Your task to perform on an android device: open a bookmark in the chrome app Image 0: 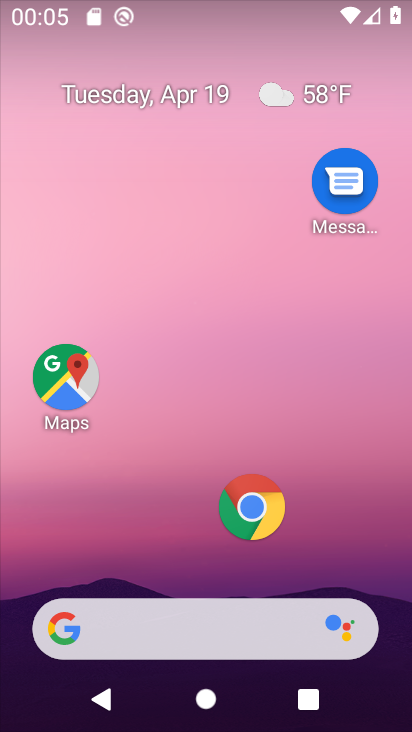
Step 0: click (249, 520)
Your task to perform on an android device: open a bookmark in the chrome app Image 1: 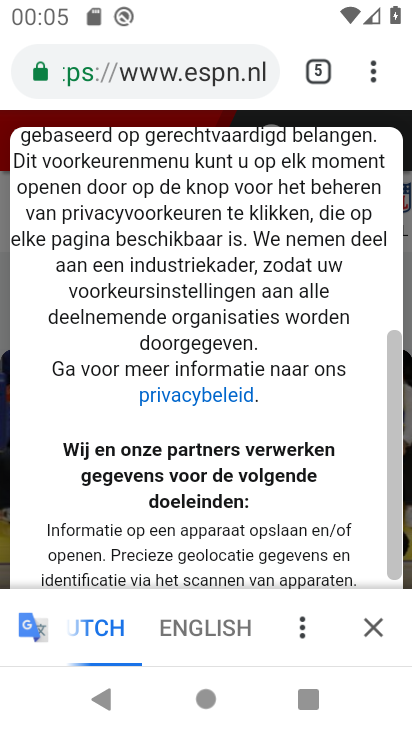
Step 1: click (374, 82)
Your task to perform on an android device: open a bookmark in the chrome app Image 2: 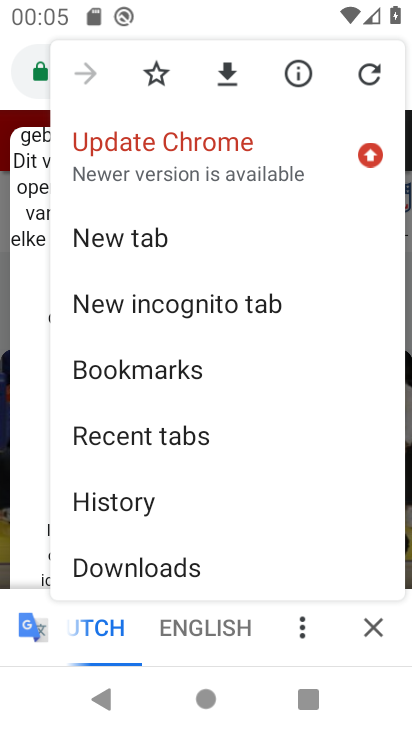
Step 2: click (152, 379)
Your task to perform on an android device: open a bookmark in the chrome app Image 3: 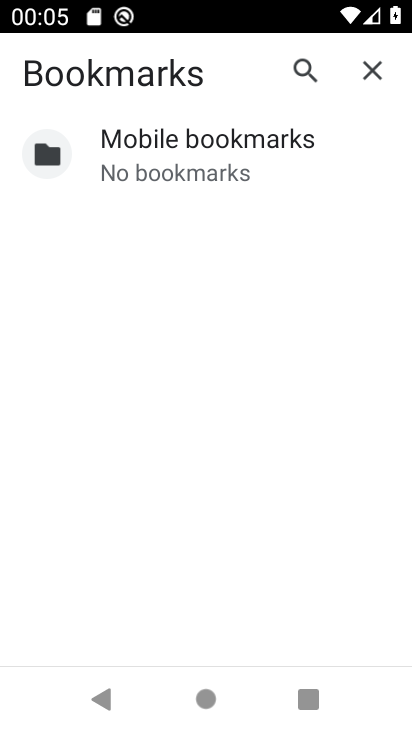
Step 3: click (369, 73)
Your task to perform on an android device: open a bookmark in the chrome app Image 4: 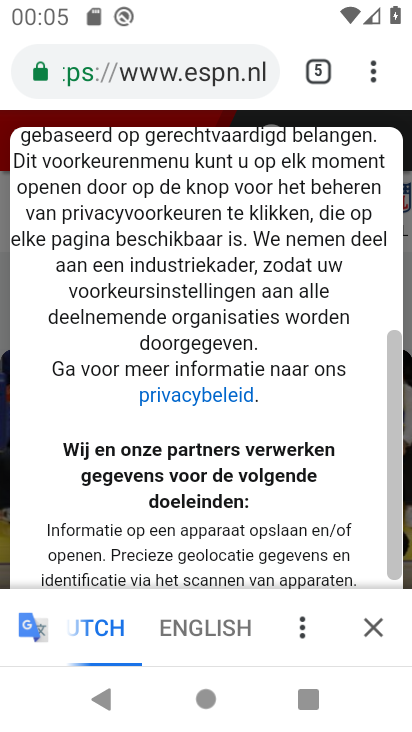
Step 4: click (376, 71)
Your task to perform on an android device: open a bookmark in the chrome app Image 5: 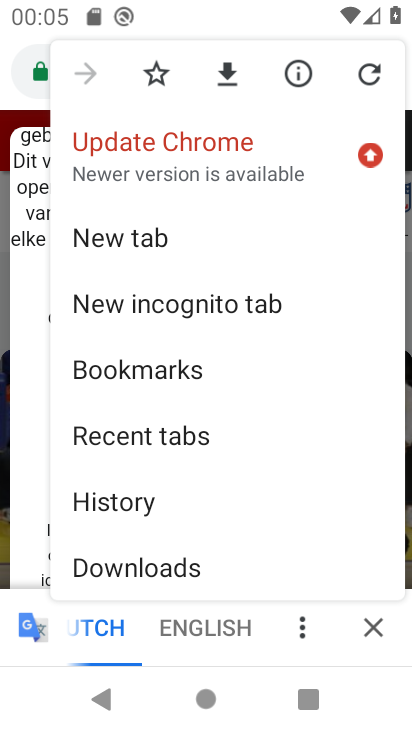
Step 5: click (173, 248)
Your task to perform on an android device: open a bookmark in the chrome app Image 6: 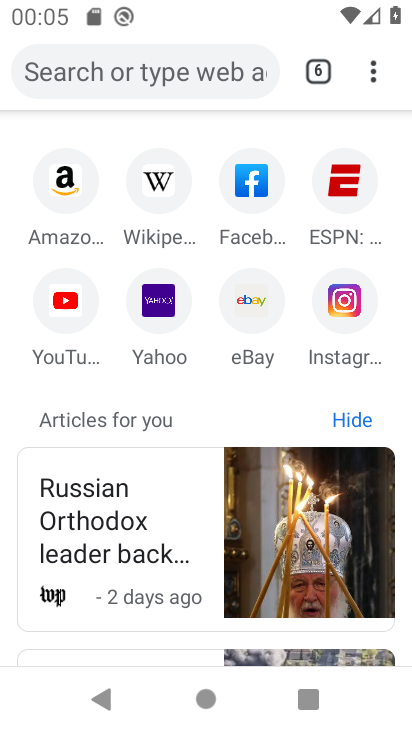
Step 6: click (255, 315)
Your task to perform on an android device: open a bookmark in the chrome app Image 7: 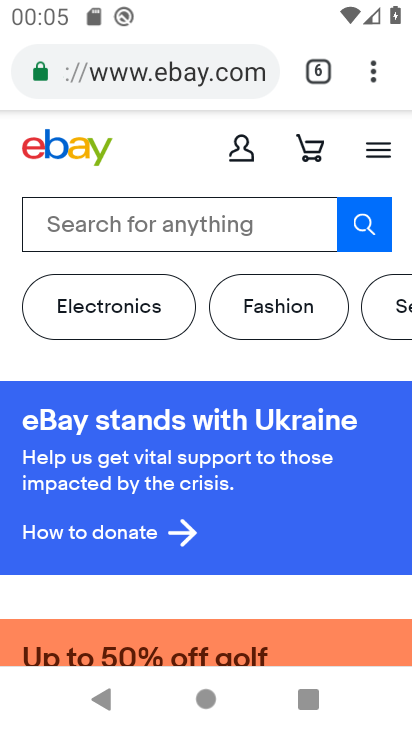
Step 7: task complete